Your task to perform on an android device: toggle data saver in the chrome app Image 0: 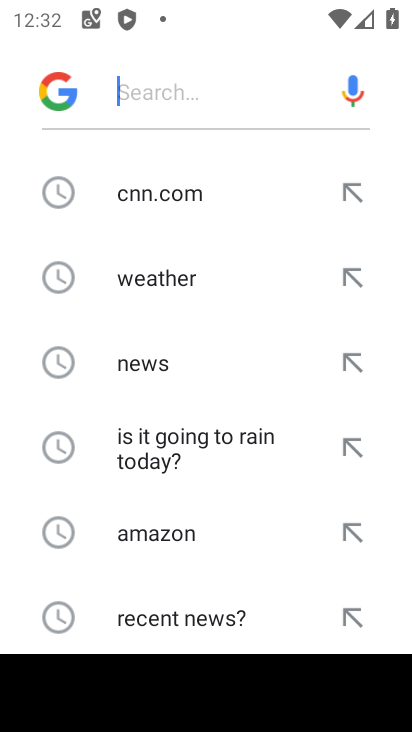
Step 0: press home button
Your task to perform on an android device: toggle data saver in the chrome app Image 1: 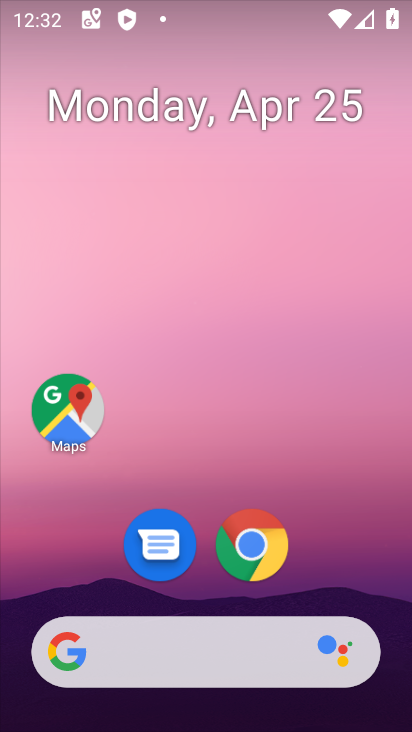
Step 1: click (245, 527)
Your task to perform on an android device: toggle data saver in the chrome app Image 2: 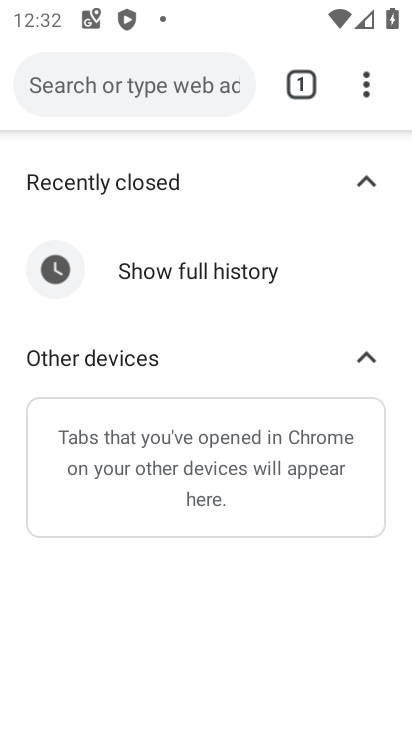
Step 2: click (369, 84)
Your task to perform on an android device: toggle data saver in the chrome app Image 3: 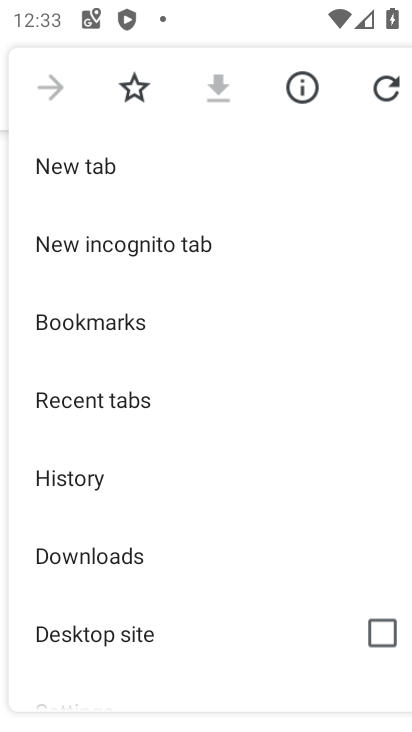
Step 3: drag from (190, 575) to (189, 276)
Your task to perform on an android device: toggle data saver in the chrome app Image 4: 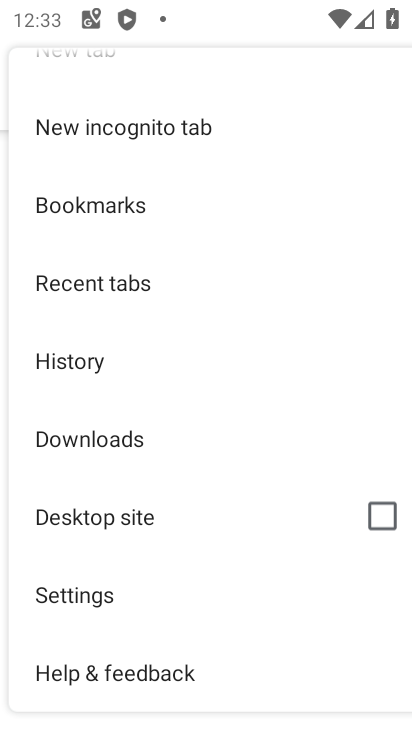
Step 4: click (107, 599)
Your task to perform on an android device: toggle data saver in the chrome app Image 5: 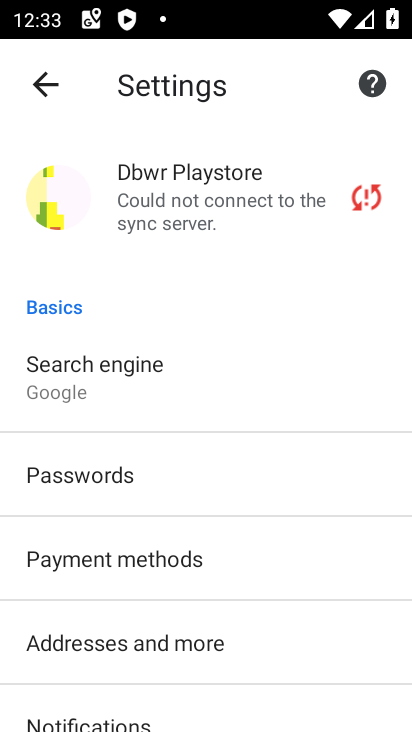
Step 5: drag from (229, 640) to (237, 376)
Your task to perform on an android device: toggle data saver in the chrome app Image 6: 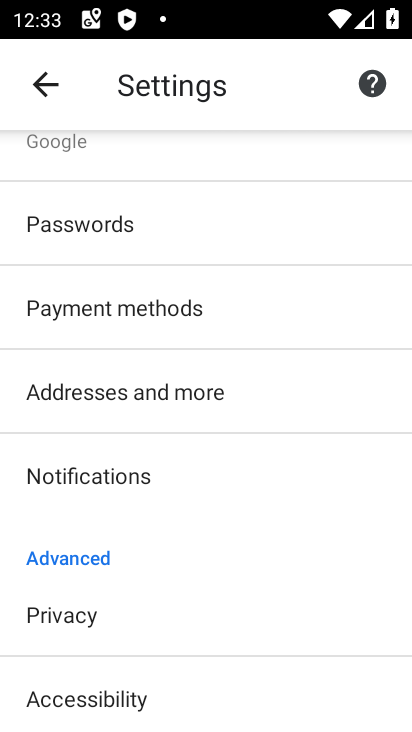
Step 6: drag from (216, 597) to (247, 254)
Your task to perform on an android device: toggle data saver in the chrome app Image 7: 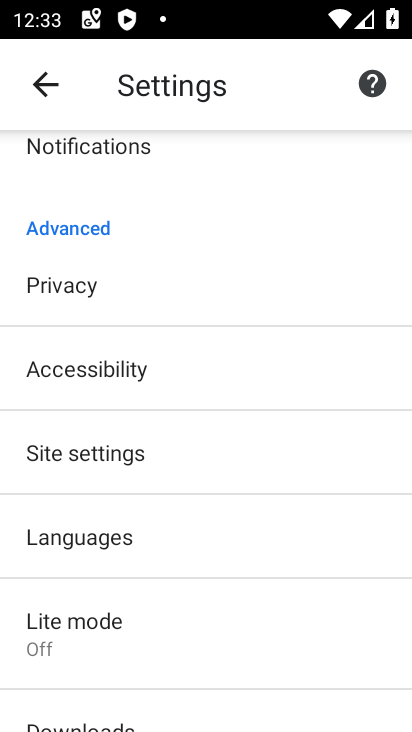
Step 7: click (138, 623)
Your task to perform on an android device: toggle data saver in the chrome app Image 8: 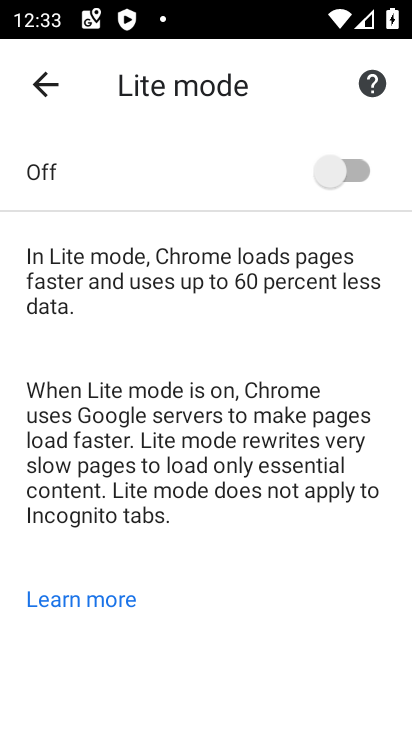
Step 8: click (351, 178)
Your task to perform on an android device: toggle data saver in the chrome app Image 9: 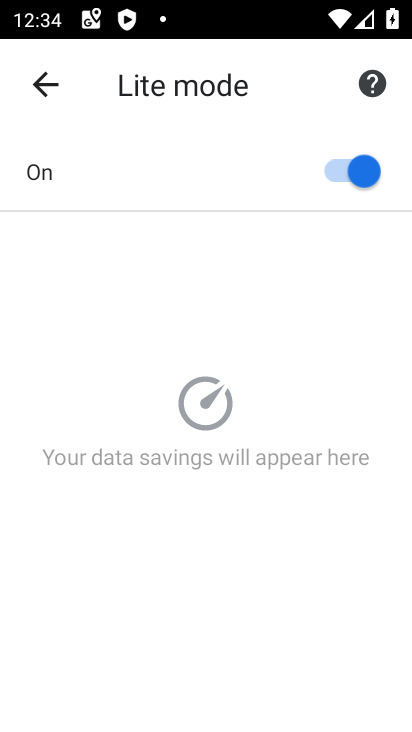
Step 9: task complete